Your task to perform on an android device: delete location history Image 0: 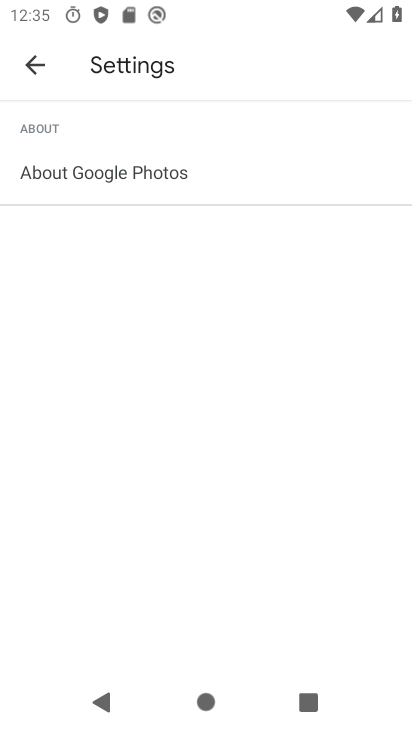
Step 0: press back button
Your task to perform on an android device: delete location history Image 1: 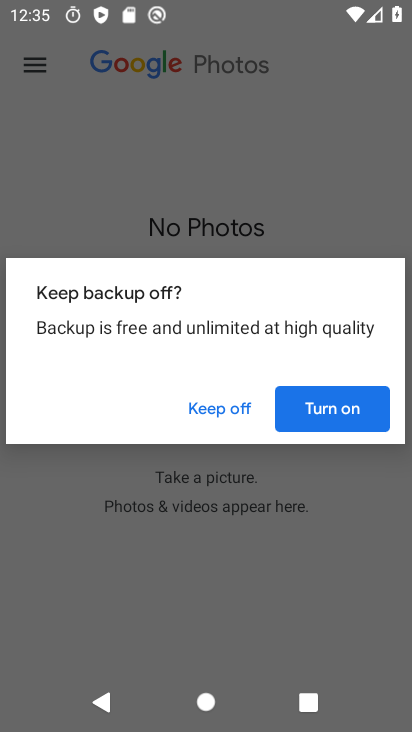
Step 1: click (235, 408)
Your task to perform on an android device: delete location history Image 2: 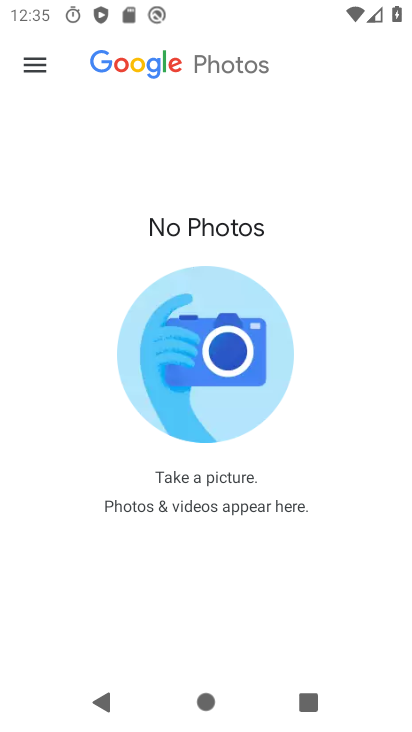
Step 2: press back button
Your task to perform on an android device: delete location history Image 3: 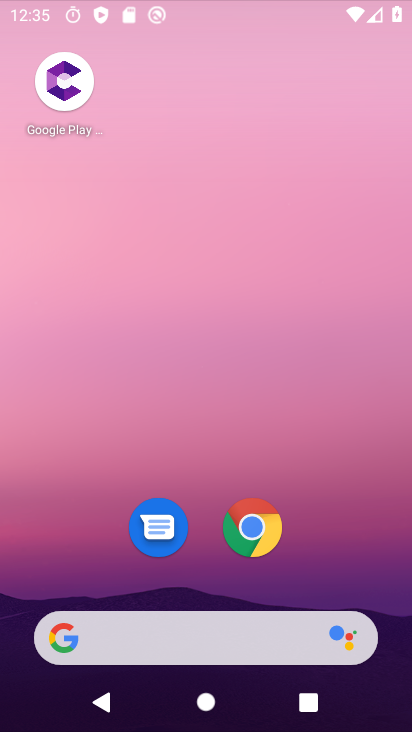
Step 3: click (274, 24)
Your task to perform on an android device: delete location history Image 4: 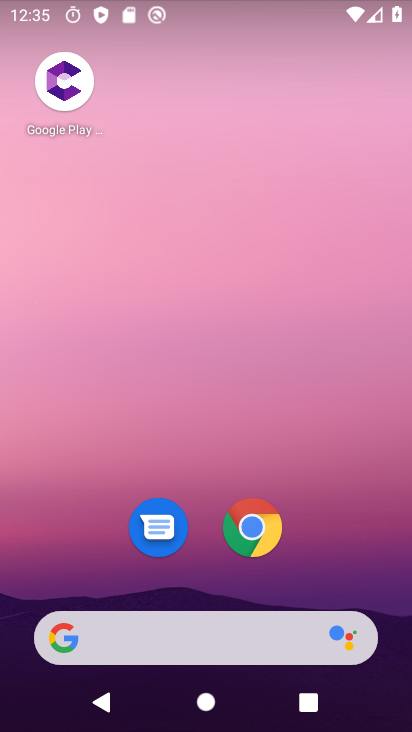
Step 4: drag from (198, 588) to (293, 18)
Your task to perform on an android device: delete location history Image 5: 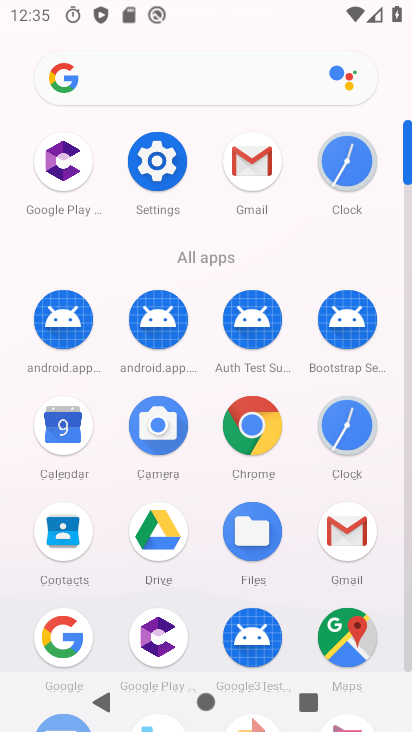
Step 5: click (154, 148)
Your task to perform on an android device: delete location history Image 6: 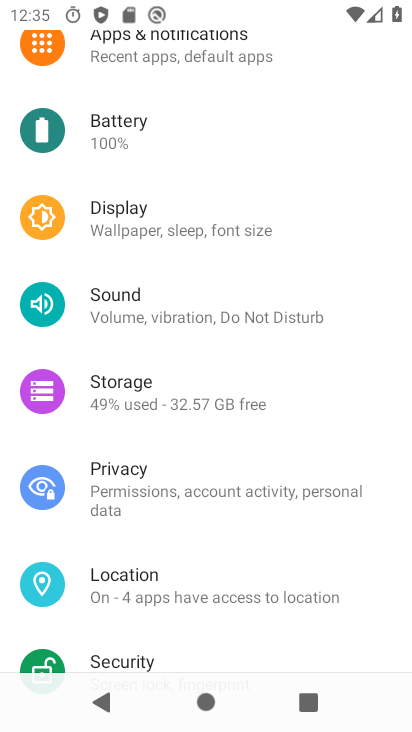
Step 6: click (125, 577)
Your task to perform on an android device: delete location history Image 7: 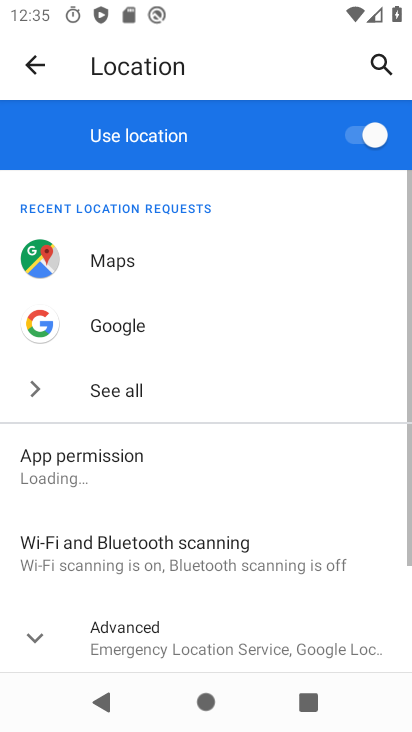
Step 7: press home button
Your task to perform on an android device: delete location history Image 8: 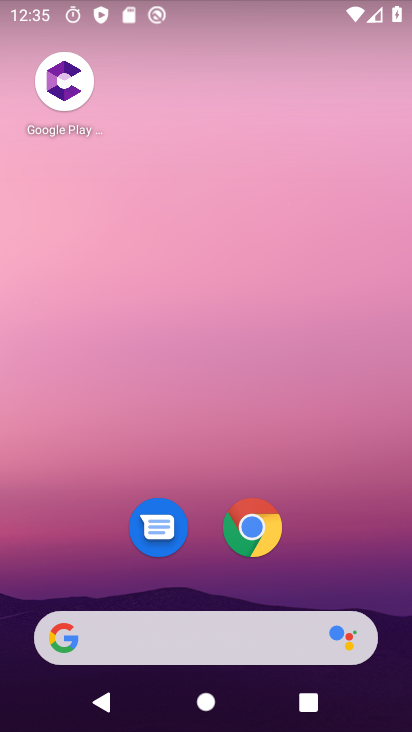
Step 8: drag from (190, 579) to (250, 74)
Your task to perform on an android device: delete location history Image 9: 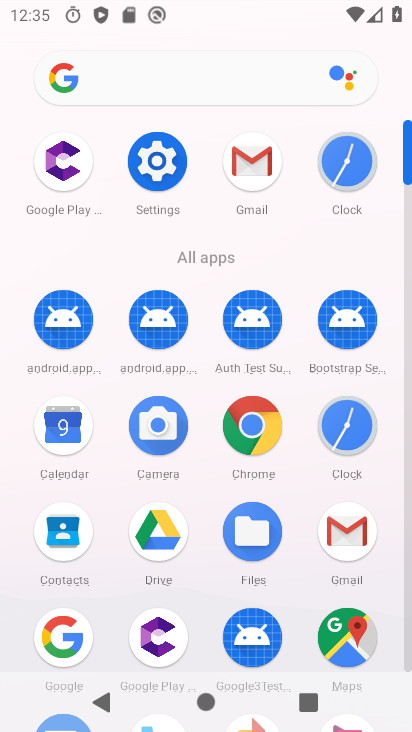
Step 9: click (352, 633)
Your task to perform on an android device: delete location history Image 10: 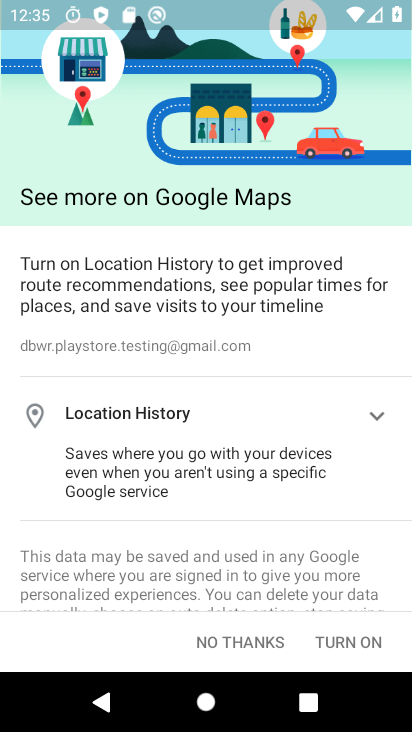
Step 10: click (260, 634)
Your task to perform on an android device: delete location history Image 11: 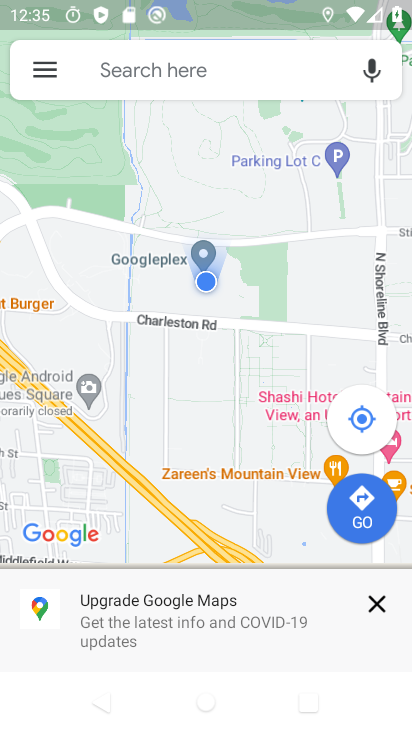
Step 11: click (37, 70)
Your task to perform on an android device: delete location history Image 12: 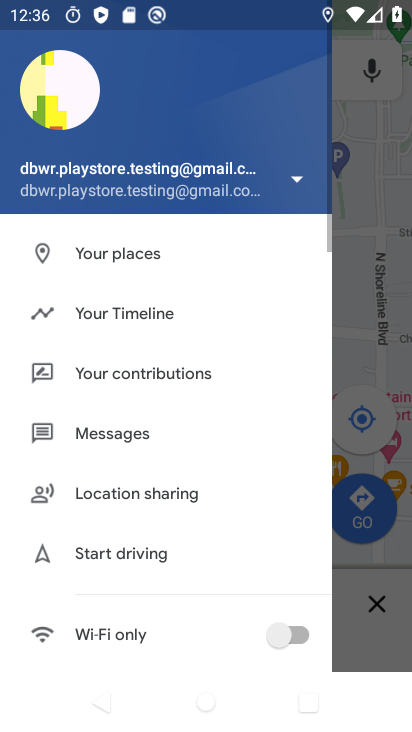
Step 12: click (151, 317)
Your task to perform on an android device: delete location history Image 13: 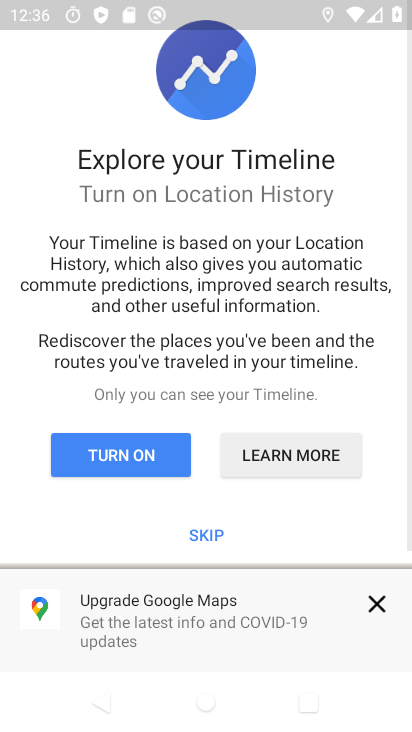
Step 13: click (229, 527)
Your task to perform on an android device: delete location history Image 14: 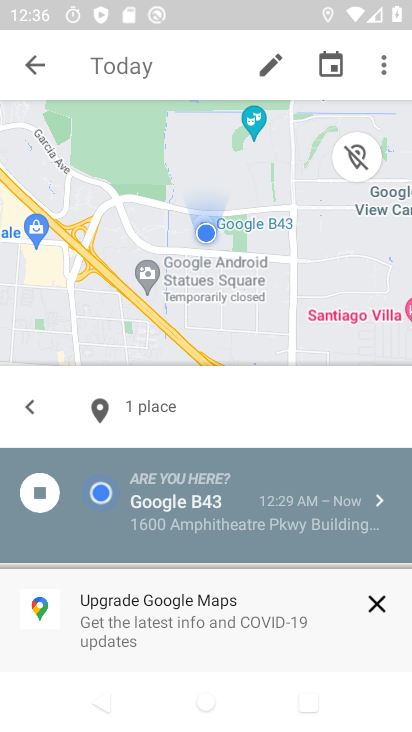
Step 14: click (383, 56)
Your task to perform on an android device: delete location history Image 15: 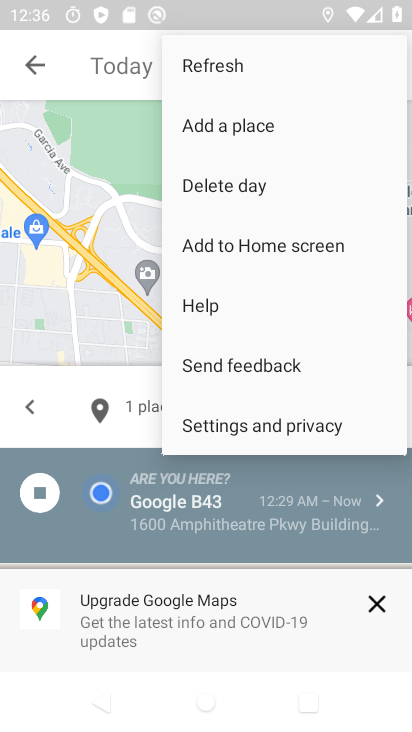
Step 15: click (256, 426)
Your task to perform on an android device: delete location history Image 16: 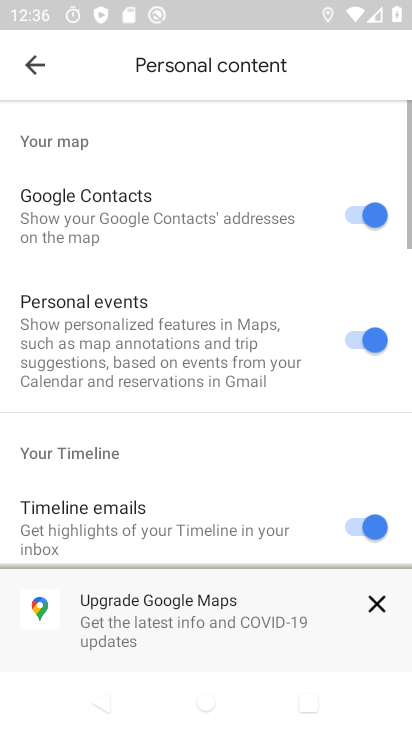
Step 16: drag from (199, 489) to (270, 17)
Your task to perform on an android device: delete location history Image 17: 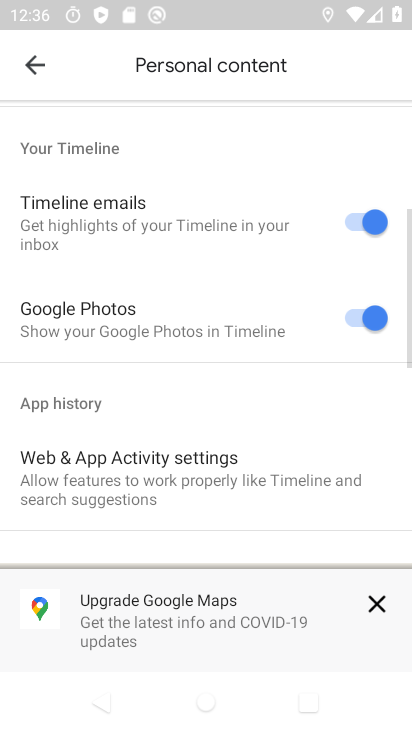
Step 17: drag from (153, 467) to (255, 4)
Your task to perform on an android device: delete location history Image 18: 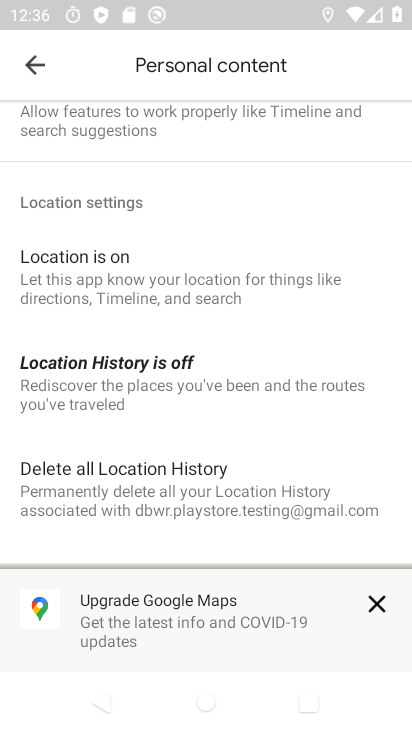
Step 18: click (154, 488)
Your task to perform on an android device: delete location history Image 19: 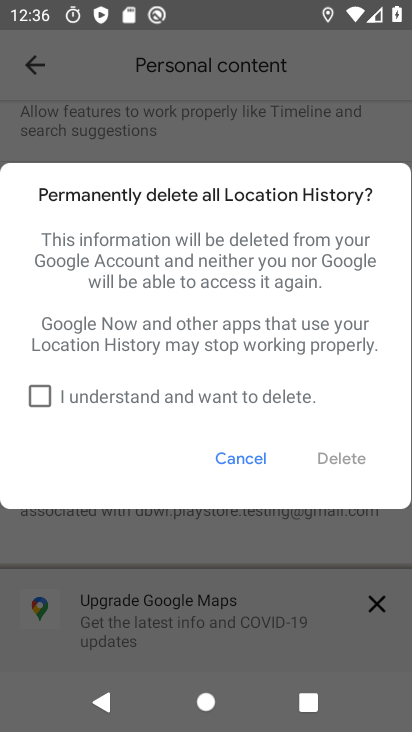
Step 19: click (49, 392)
Your task to perform on an android device: delete location history Image 20: 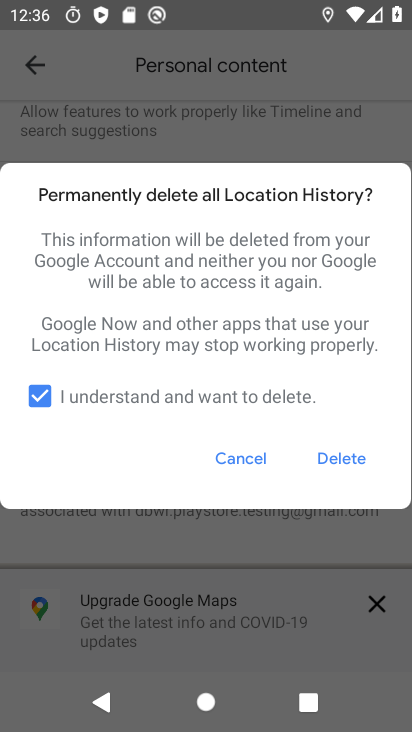
Step 20: click (346, 458)
Your task to perform on an android device: delete location history Image 21: 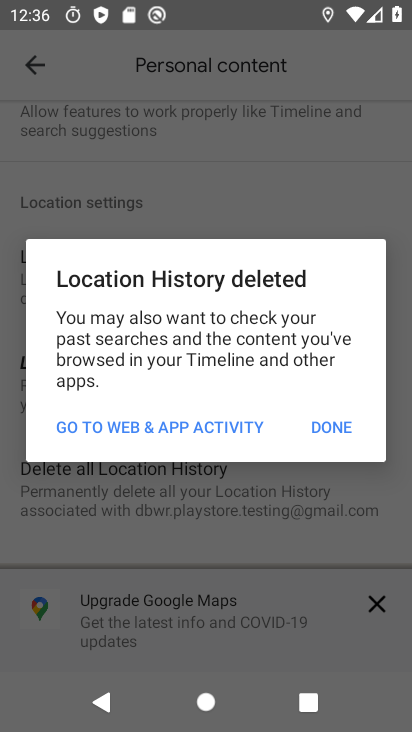
Step 21: click (351, 426)
Your task to perform on an android device: delete location history Image 22: 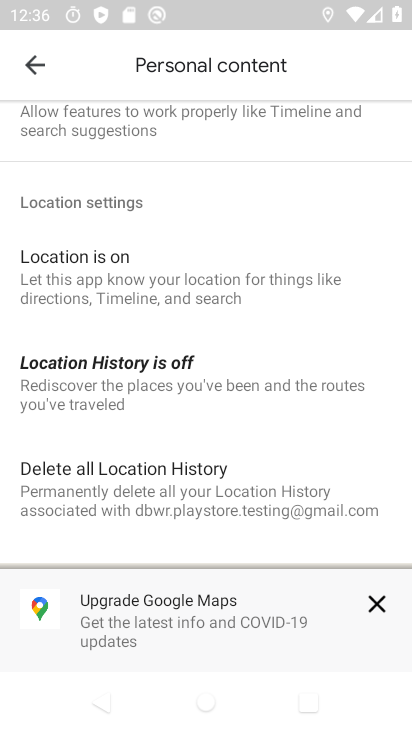
Step 22: task complete